Your task to perform on an android device: clear all cookies in the chrome app Image 0: 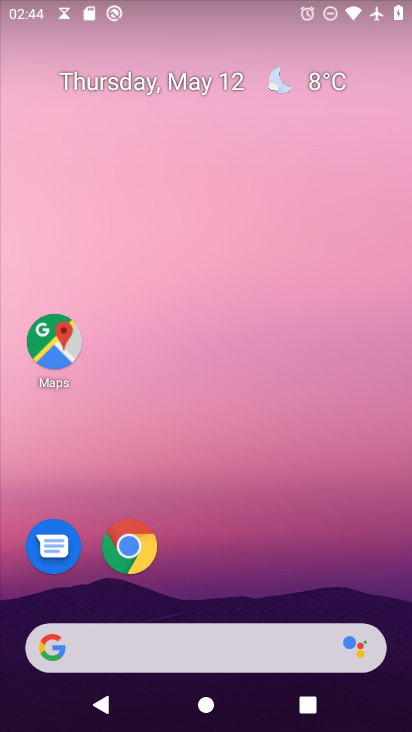
Step 0: click (130, 561)
Your task to perform on an android device: clear all cookies in the chrome app Image 1: 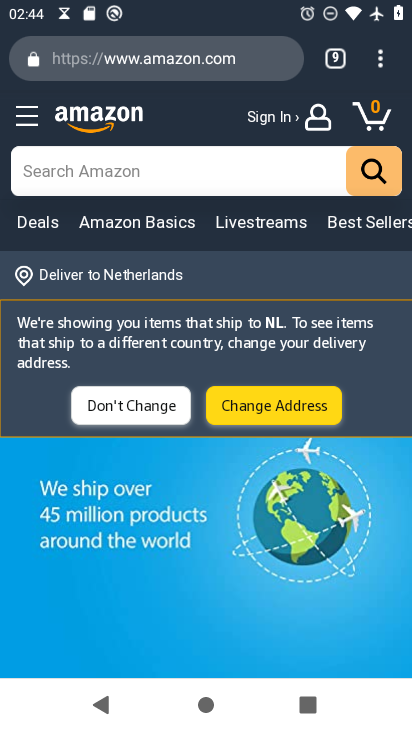
Step 1: drag from (386, 60) to (260, 582)
Your task to perform on an android device: clear all cookies in the chrome app Image 2: 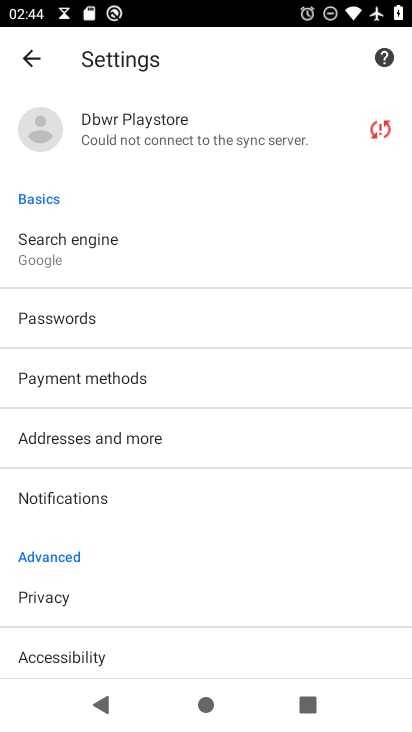
Step 2: click (57, 596)
Your task to perform on an android device: clear all cookies in the chrome app Image 3: 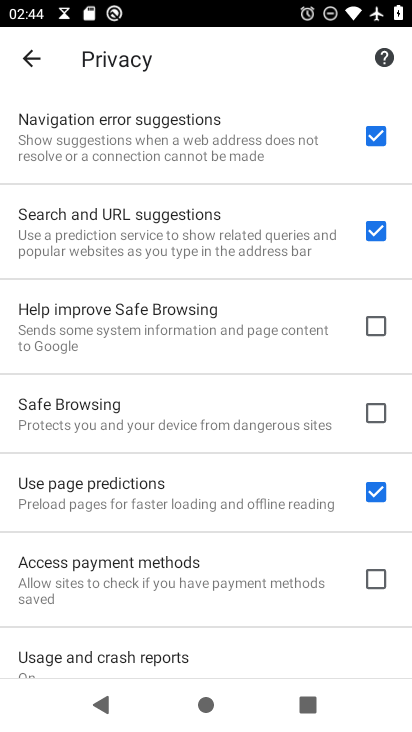
Step 3: drag from (140, 664) to (267, 252)
Your task to perform on an android device: clear all cookies in the chrome app Image 4: 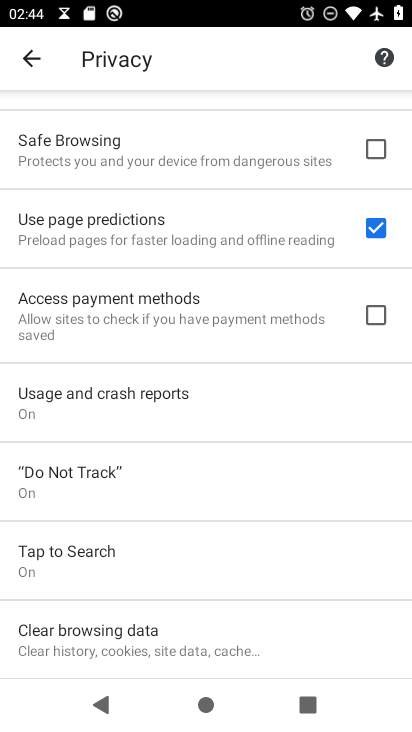
Step 4: click (101, 633)
Your task to perform on an android device: clear all cookies in the chrome app Image 5: 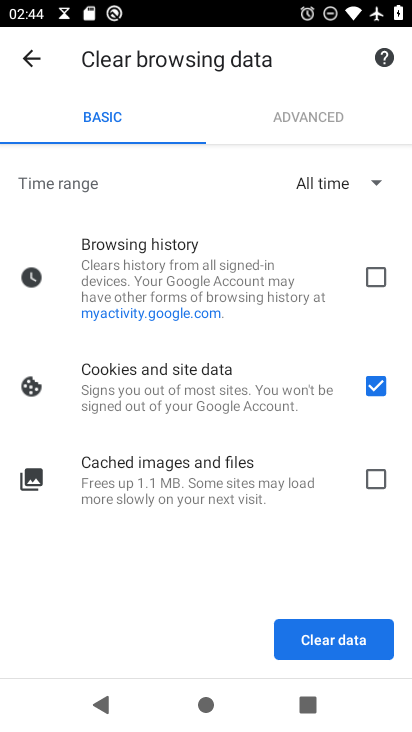
Step 5: click (344, 643)
Your task to perform on an android device: clear all cookies in the chrome app Image 6: 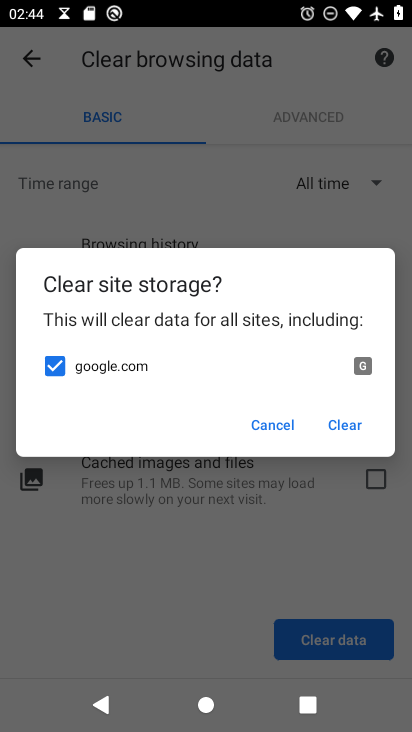
Step 6: click (344, 427)
Your task to perform on an android device: clear all cookies in the chrome app Image 7: 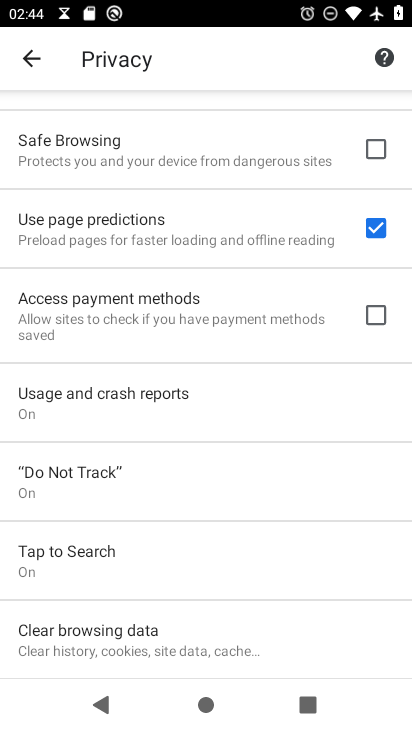
Step 7: task complete